Your task to perform on an android device: Open display settings Image 0: 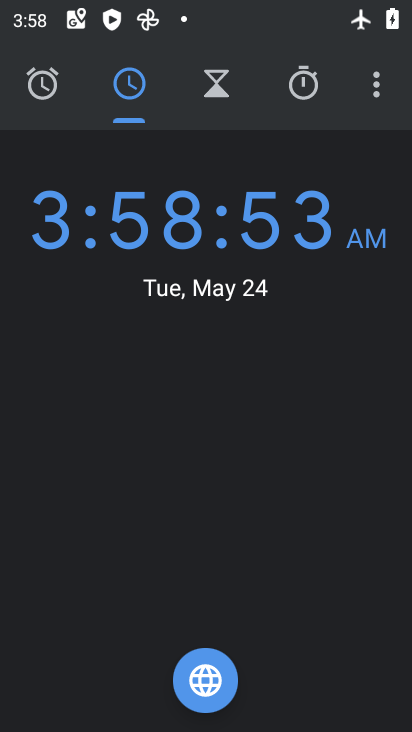
Step 0: press home button
Your task to perform on an android device: Open display settings Image 1: 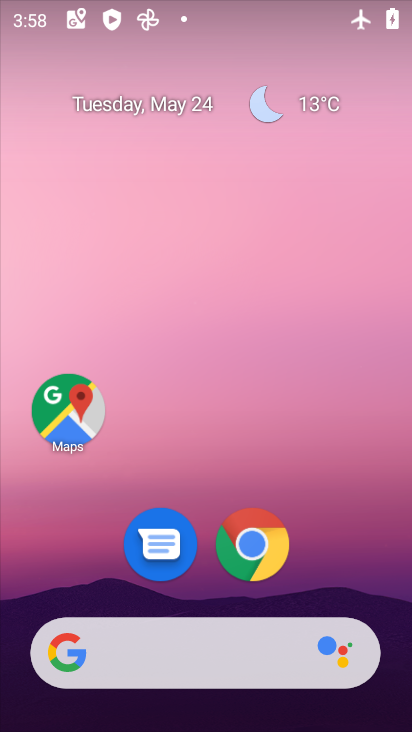
Step 1: drag from (383, 583) to (328, 85)
Your task to perform on an android device: Open display settings Image 2: 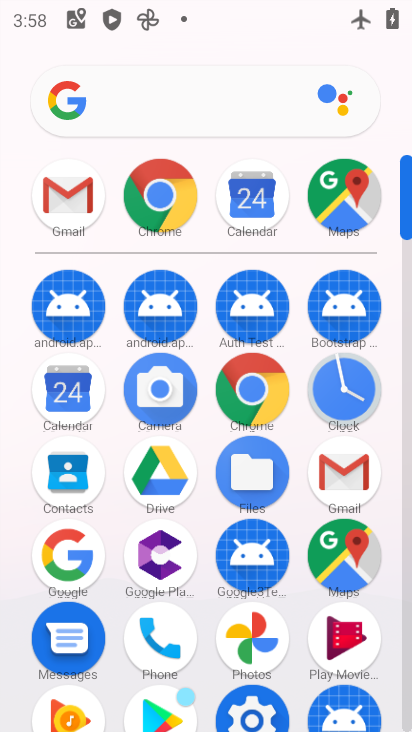
Step 2: drag from (389, 460) to (370, 54)
Your task to perform on an android device: Open display settings Image 3: 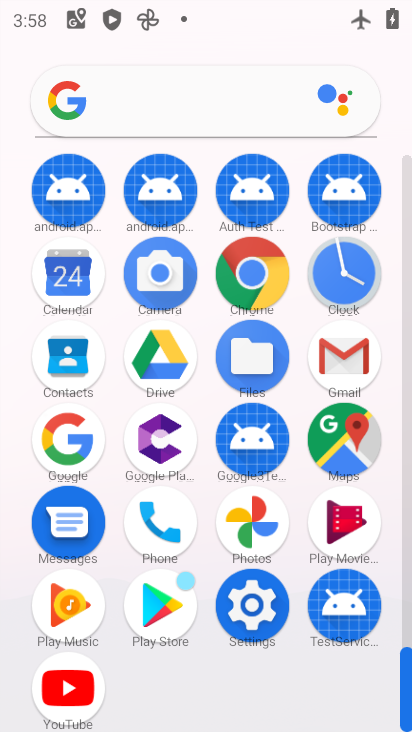
Step 3: click (268, 630)
Your task to perform on an android device: Open display settings Image 4: 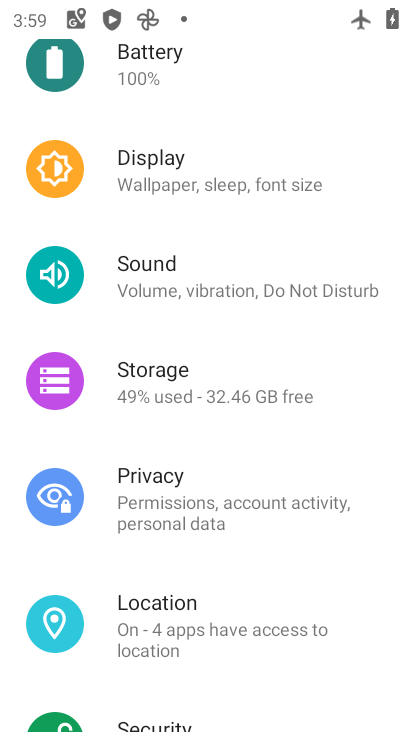
Step 4: click (187, 177)
Your task to perform on an android device: Open display settings Image 5: 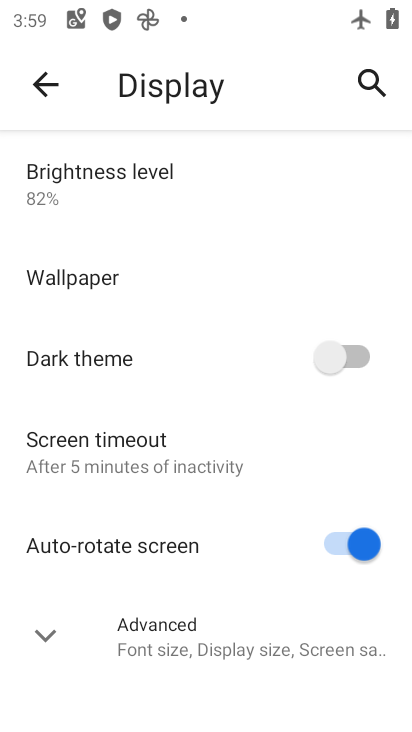
Step 5: task complete